Your task to perform on an android device: find which apps use the phone's location Image 0: 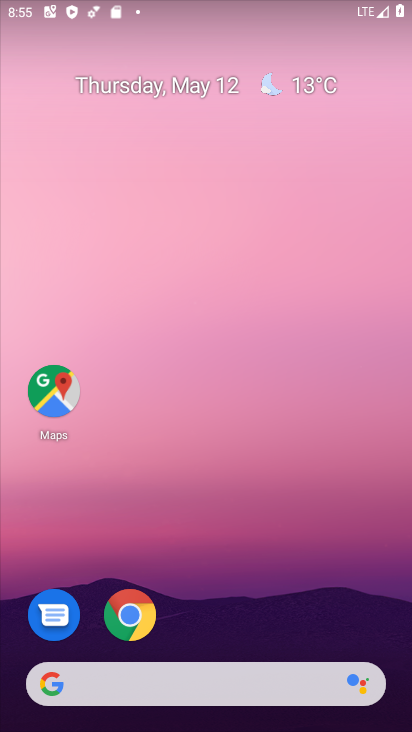
Step 0: drag from (186, 662) to (242, 12)
Your task to perform on an android device: find which apps use the phone's location Image 1: 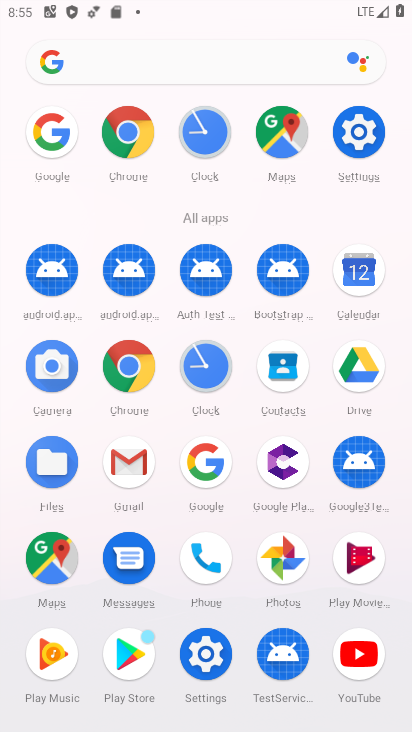
Step 1: click (361, 129)
Your task to perform on an android device: find which apps use the phone's location Image 2: 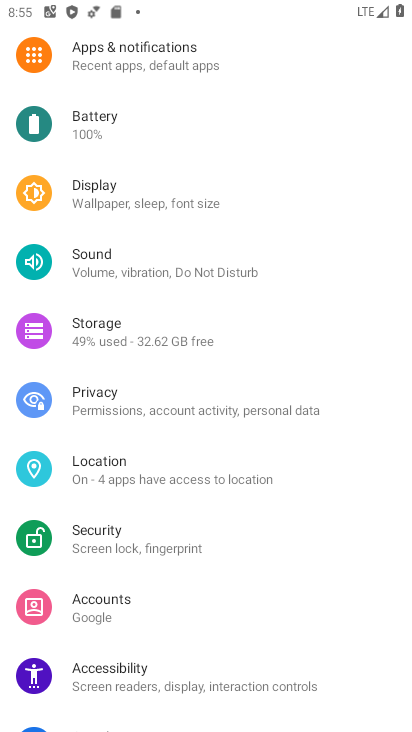
Step 2: click (180, 461)
Your task to perform on an android device: find which apps use the phone's location Image 3: 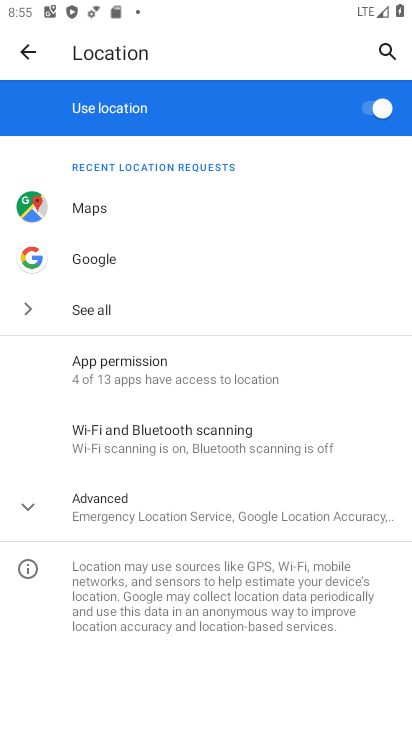
Step 3: click (75, 350)
Your task to perform on an android device: find which apps use the phone's location Image 4: 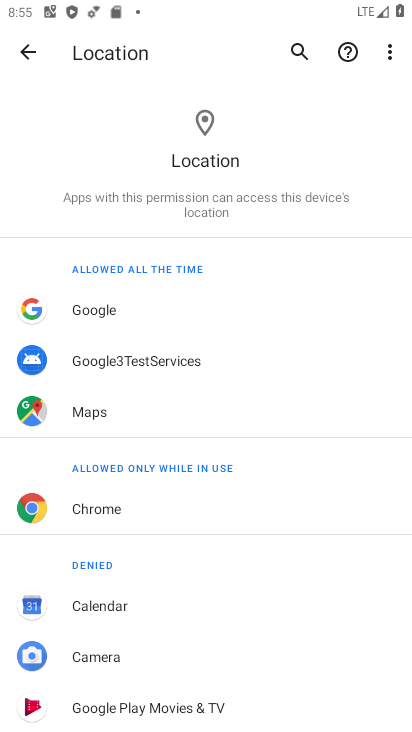
Step 4: task complete